Your task to perform on an android device: turn off sleep mode Image 0: 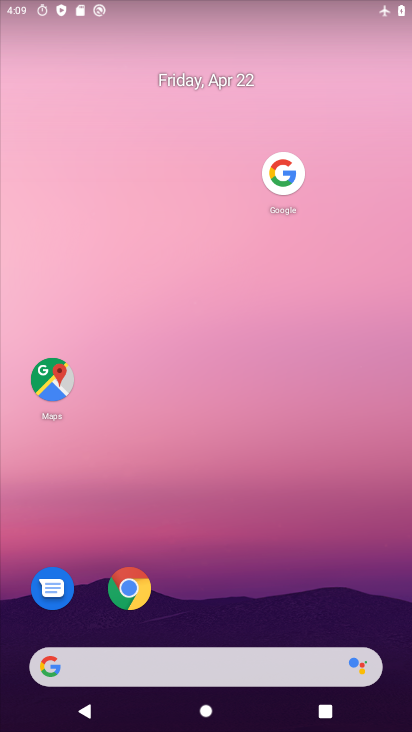
Step 0: drag from (206, 644) to (197, 0)
Your task to perform on an android device: turn off sleep mode Image 1: 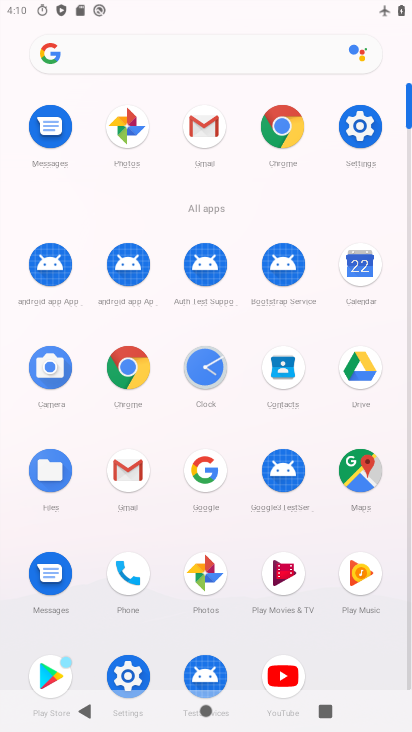
Step 1: click (123, 672)
Your task to perform on an android device: turn off sleep mode Image 2: 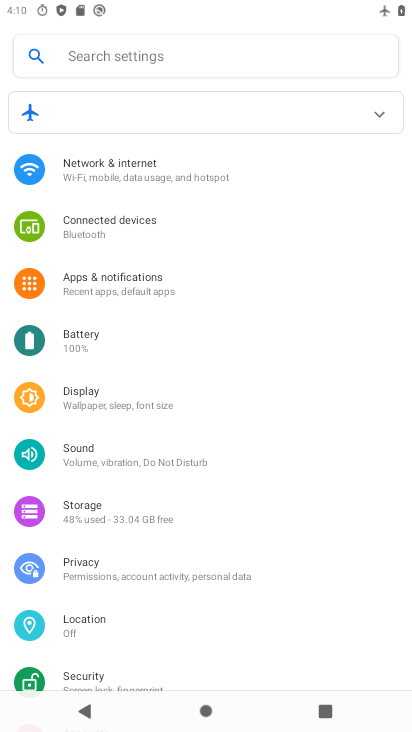
Step 2: task complete